Your task to perform on an android device: delete location history Image 0: 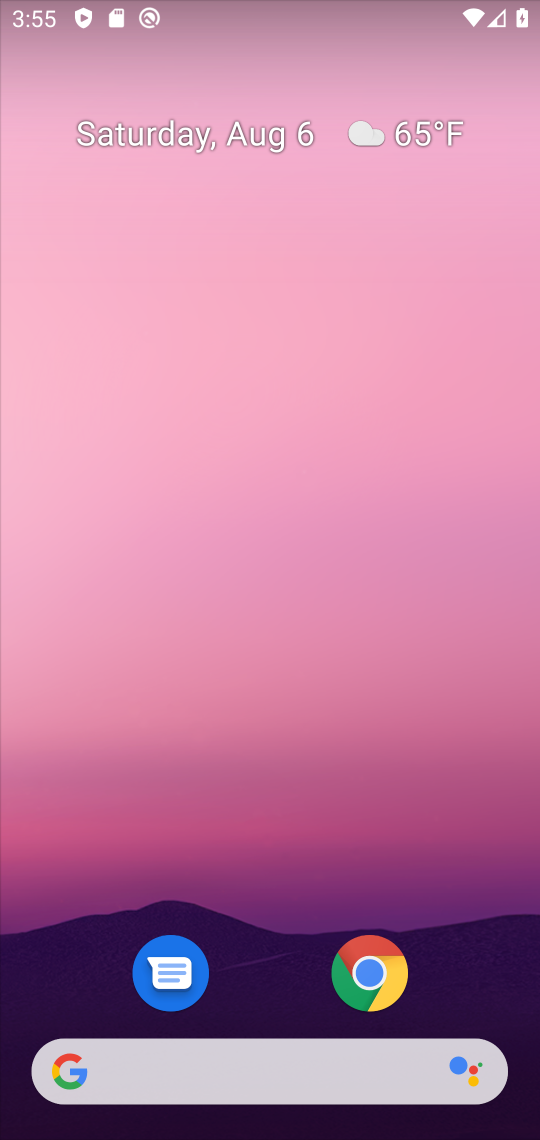
Step 0: drag from (477, 922) to (275, 215)
Your task to perform on an android device: delete location history Image 1: 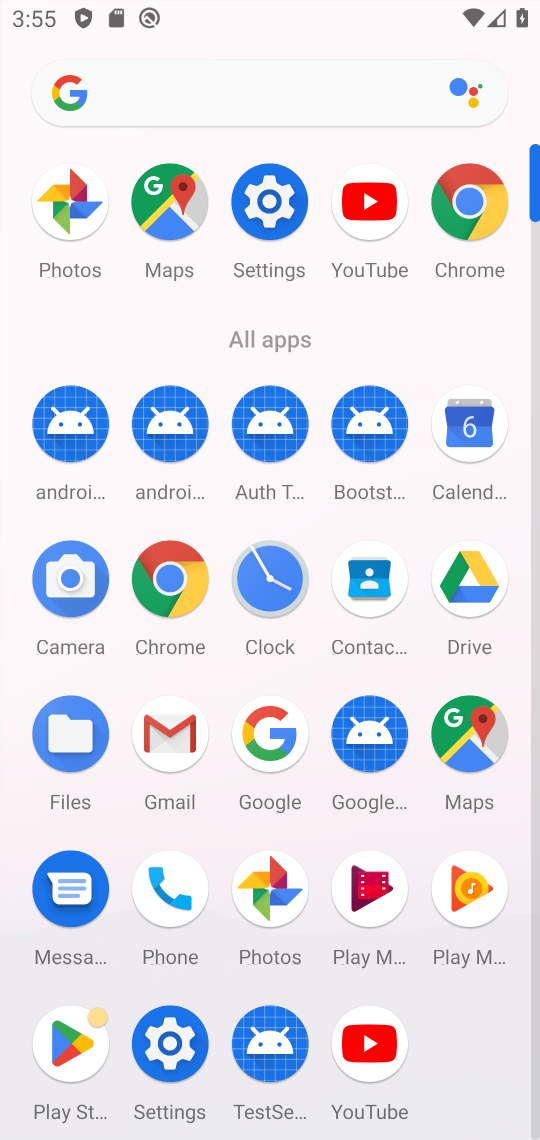
Step 1: click (174, 204)
Your task to perform on an android device: delete location history Image 2: 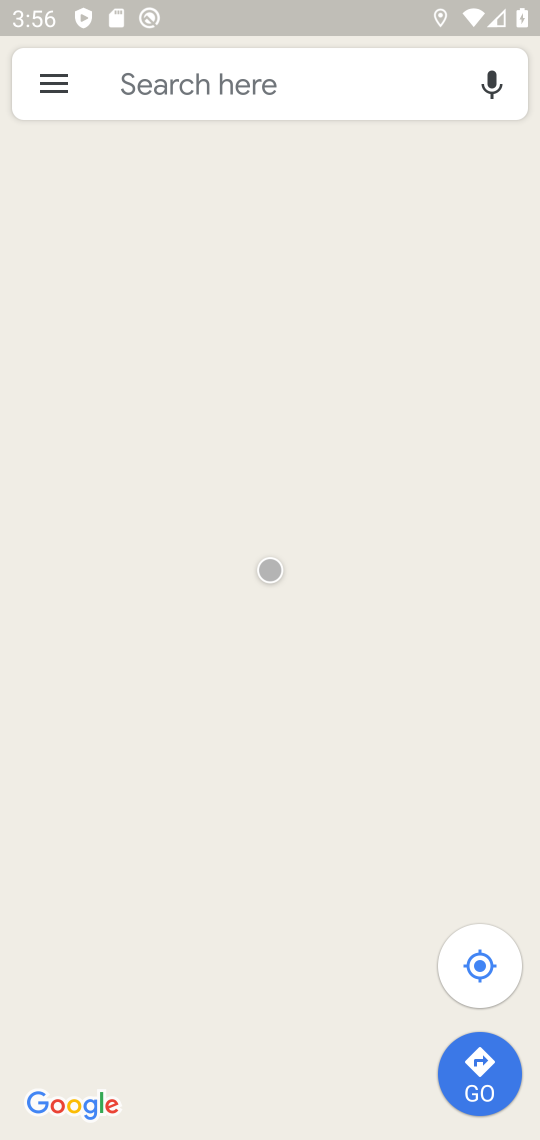
Step 2: click (46, 81)
Your task to perform on an android device: delete location history Image 3: 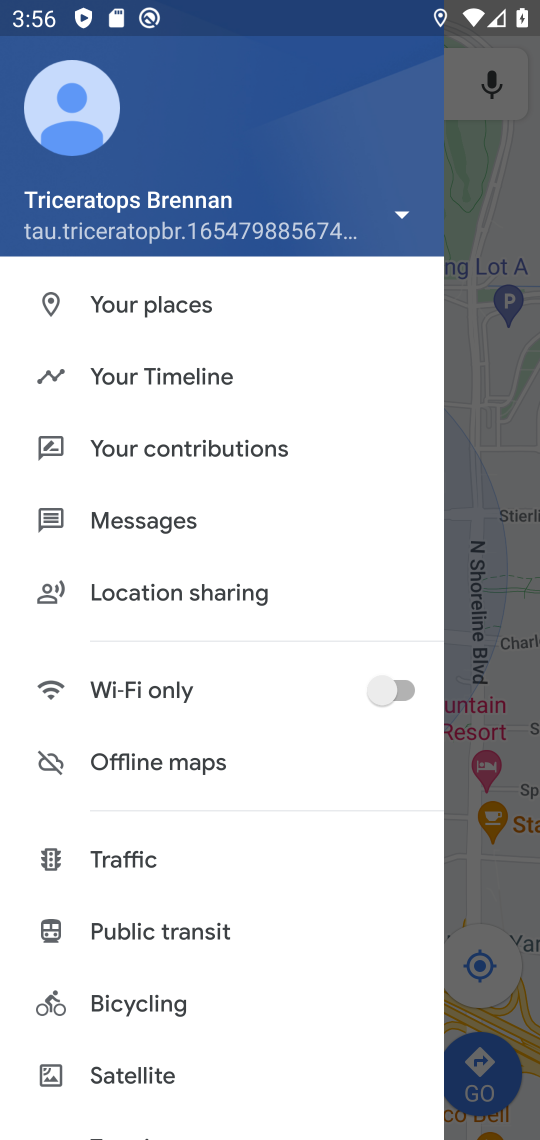
Step 3: drag from (229, 1003) to (244, 253)
Your task to perform on an android device: delete location history Image 4: 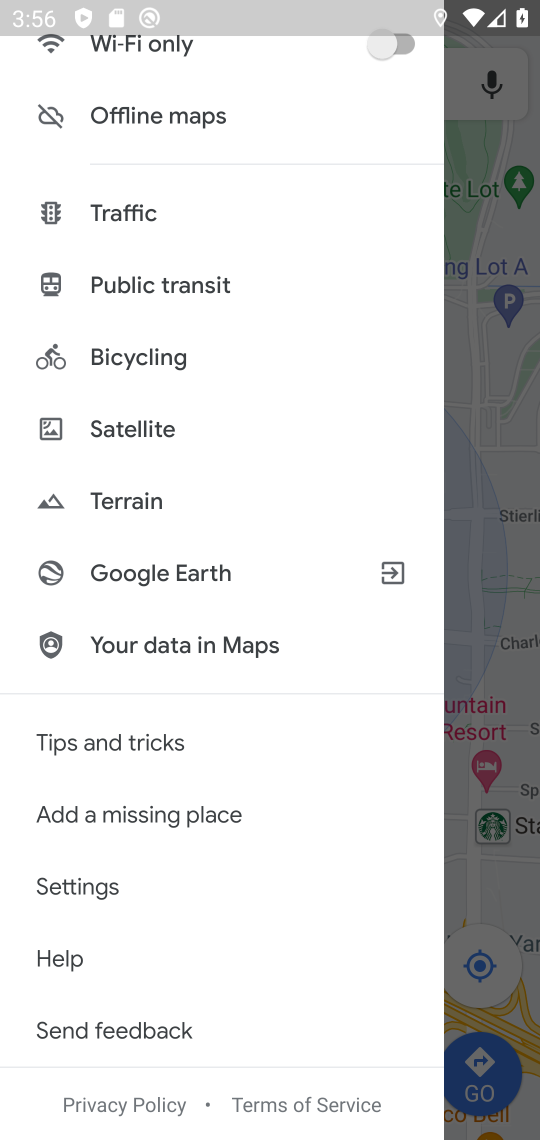
Step 4: click (75, 888)
Your task to perform on an android device: delete location history Image 5: 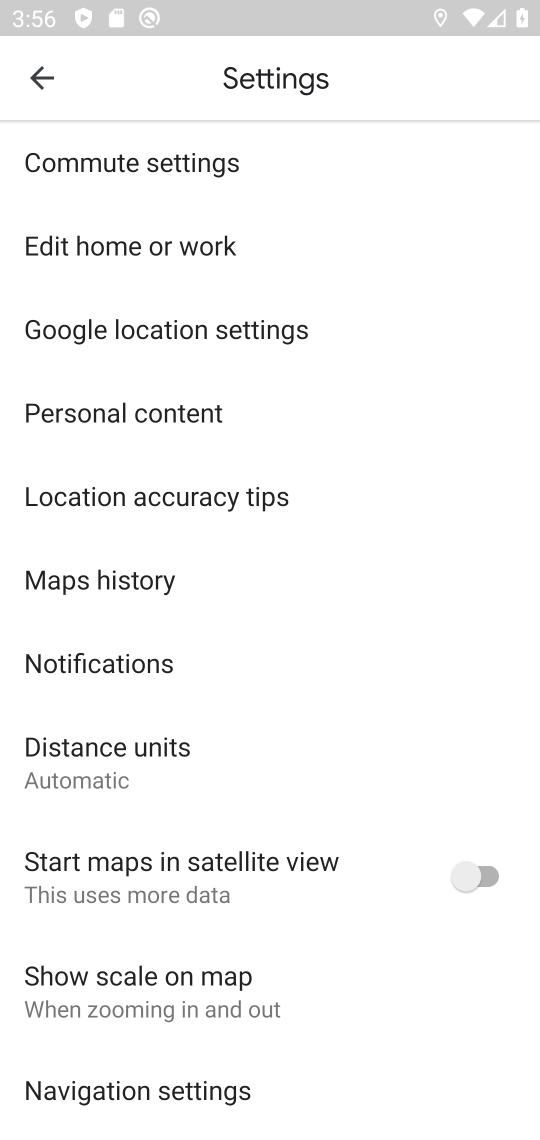
Step 5: drag from (312, 1018) to (385, 381)
Your task to perform on an android device: delete location history Image 6: 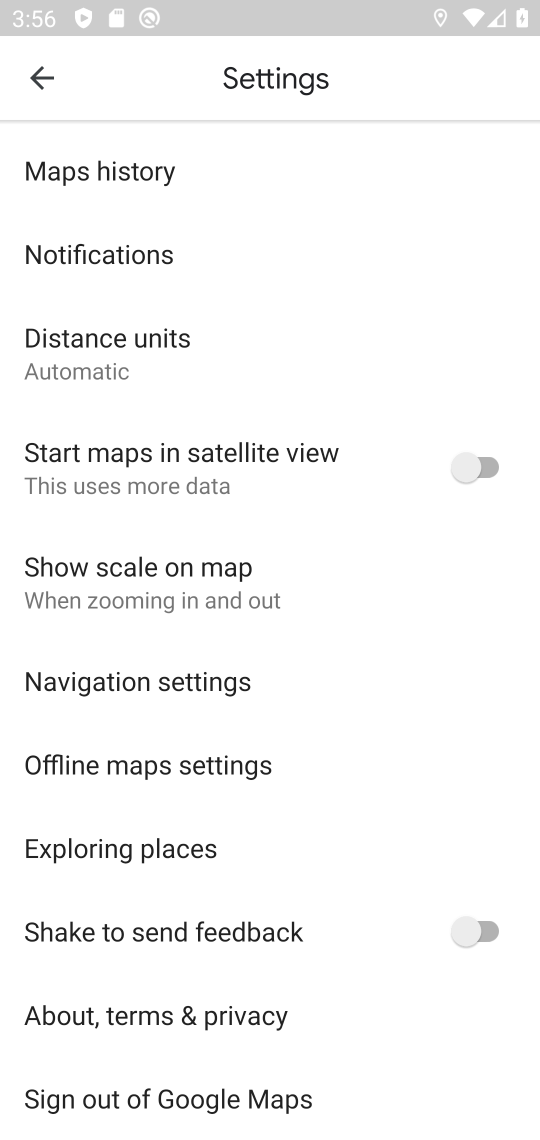
Step 6: click (114, 171)
Your task to perform on an android device: delete location history Image 7: 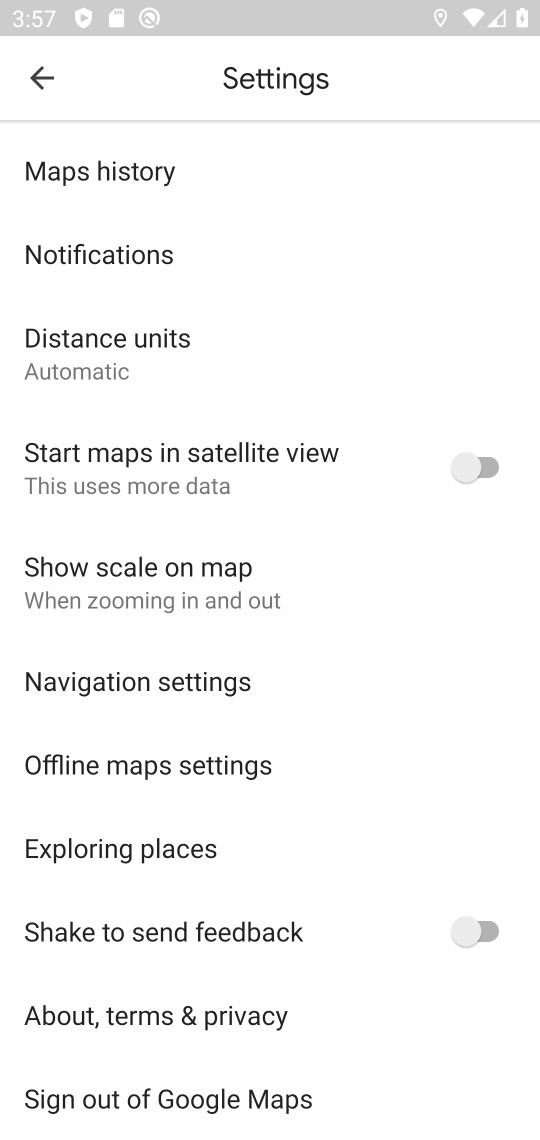
Step 7: click (63, 177)
Your task to perform on an android device: delete location history Image 8: 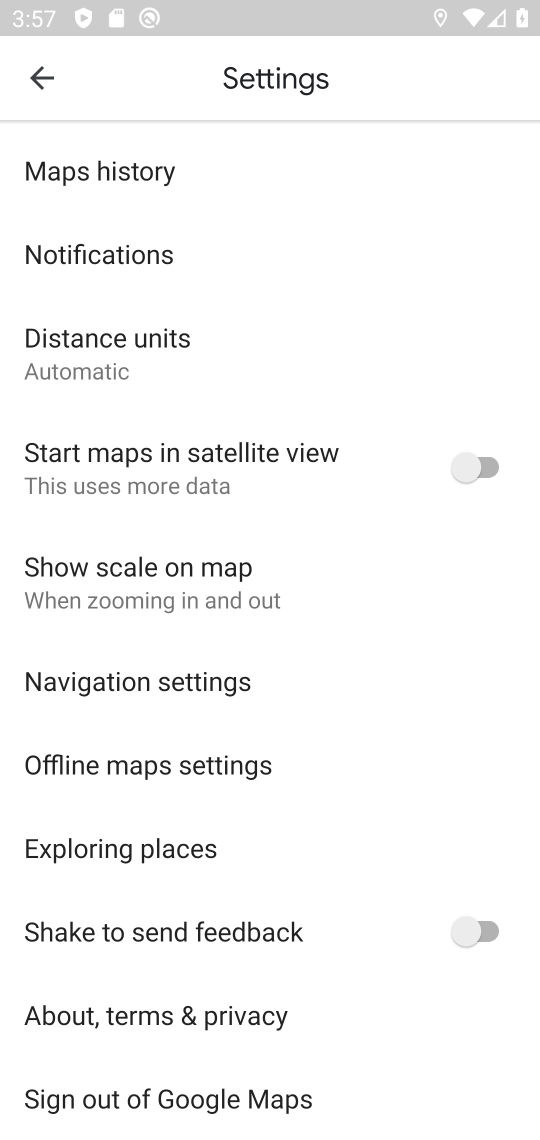
Step 8: click (145, 177)
Your task to perform on an android device: delete location history Image 9: 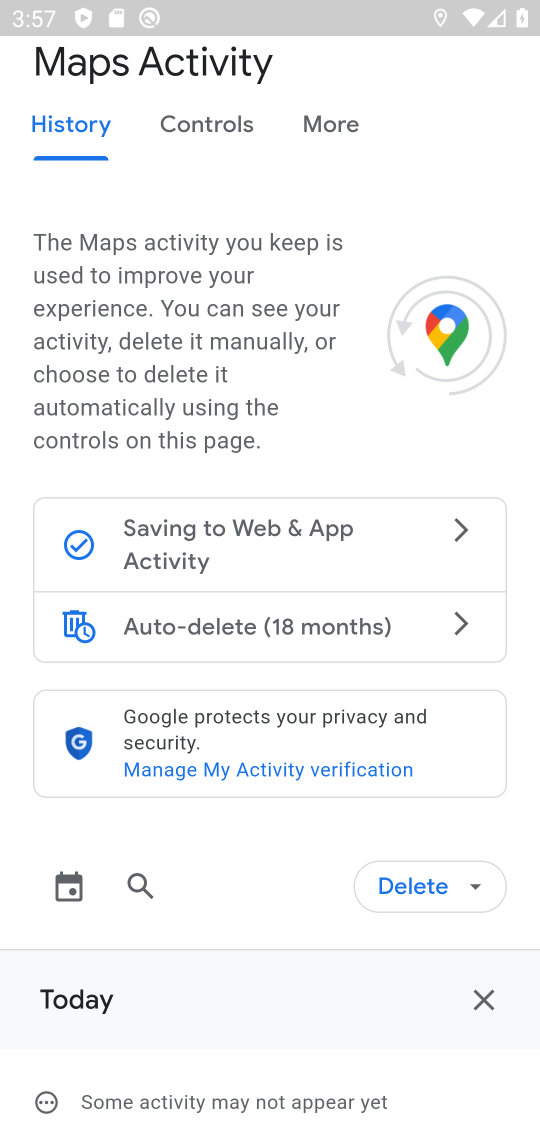
Step 9: click (475, 884)
Your task to perform on an android device: delete location history Image 10: 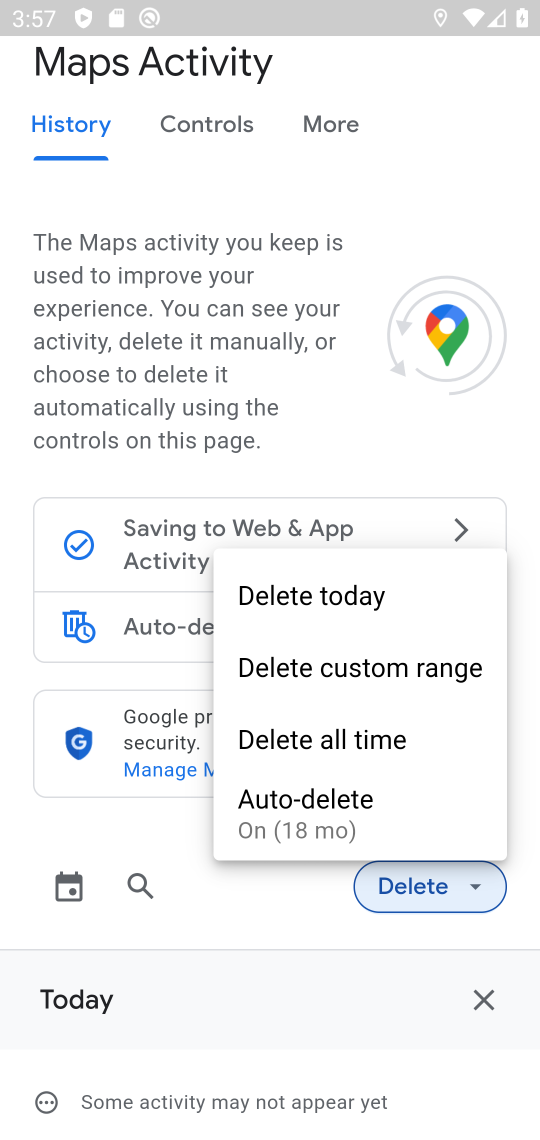
Step 10: click (343, 746)
Your task to perform on an android device: delete location history Image 11: 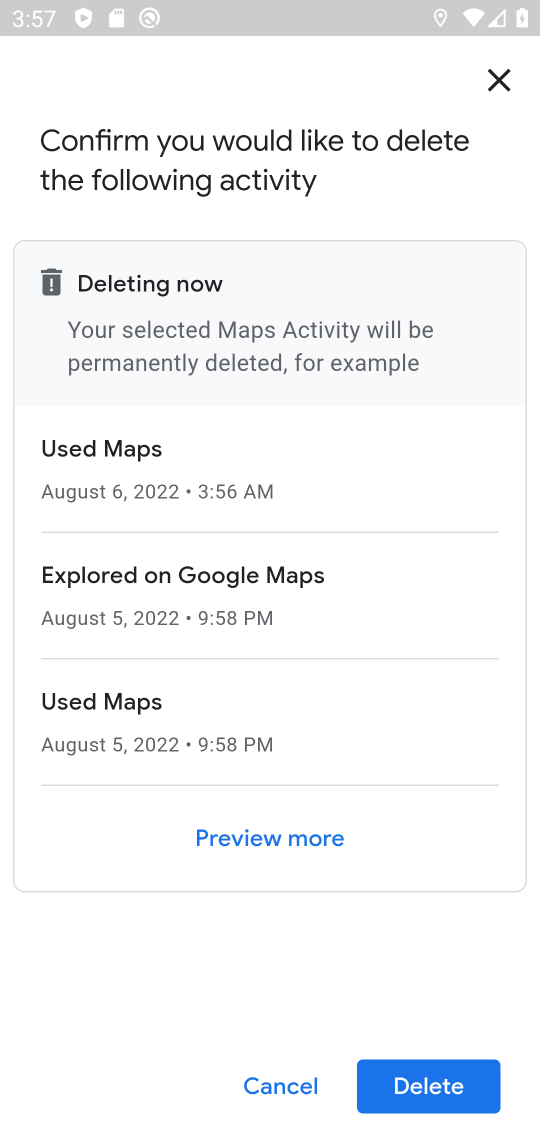
Step 11: click (440, 1086)
Your task to perform on an android device: delete location history Image 12: 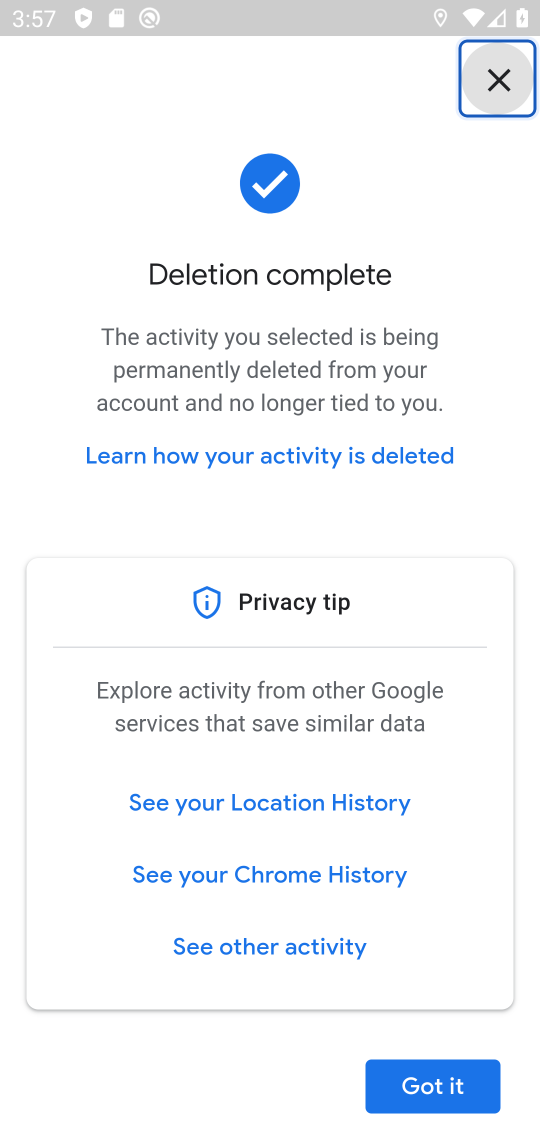
Step 12: task complete